Your task to perform on an android device: show emergency info Image 0: 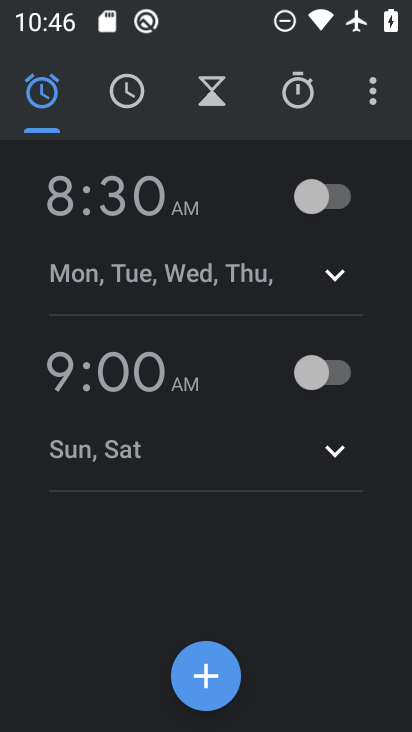
Step 0: press home button
Your task to perform on an android device: show emergency info Image 1: 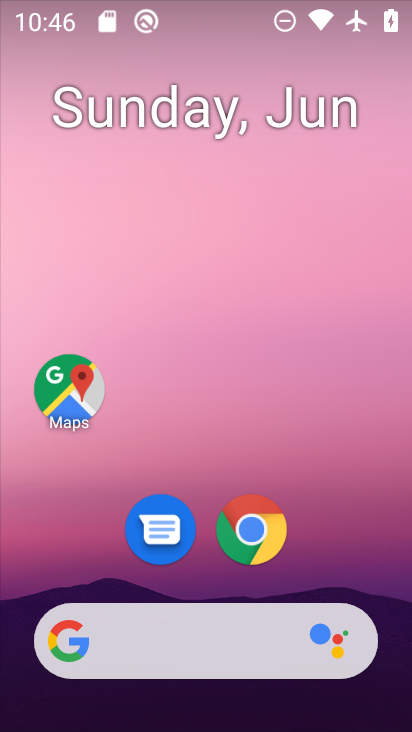
Step 1: drag from (398, 637) to (354, 10)
Your task to perform on an android device: show emergency info Image 2: 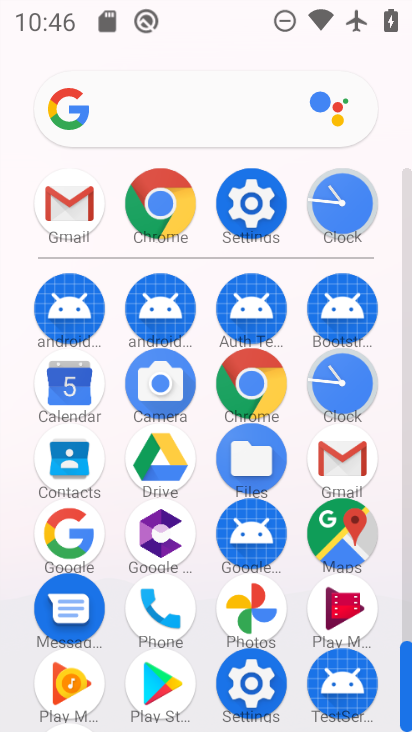
Step 2: click (407, 621)
Your task to perform on an android device: show emergency info Image 3: 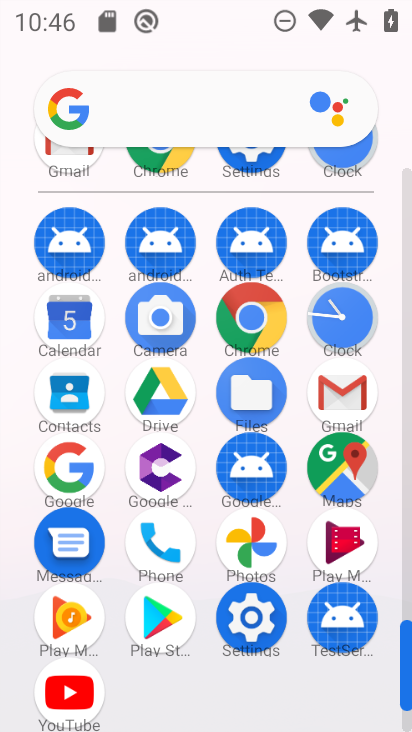
Step 3: click (251, 619)
Your task to perform on an android device: show emergency info Image 4: 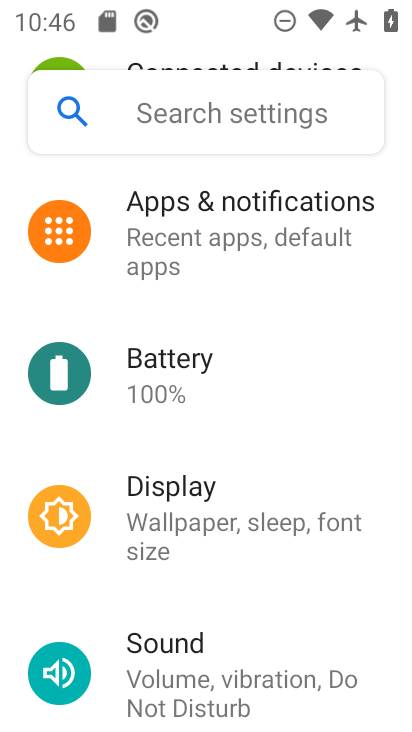
Step 4: drag from (362, 683) to (325, 247)
Your task to perform on an android device: show emergency info Image 5: 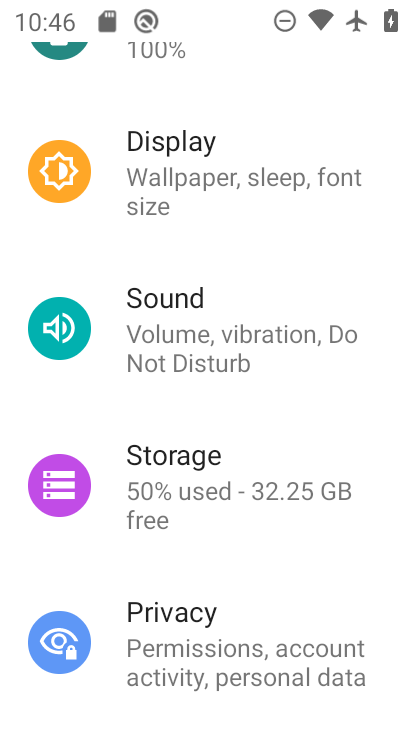
Step 5: drag from (342, 675) to (299, 247)
Your task to perform on an android device: show emergency info Image 6: 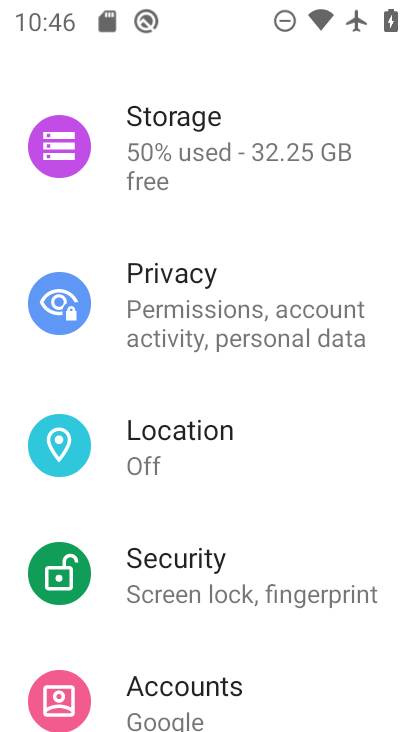
Step 6: drag from (312, 564) to (294, 123)
Your task to perform on an android device: show emergency info Image 7: 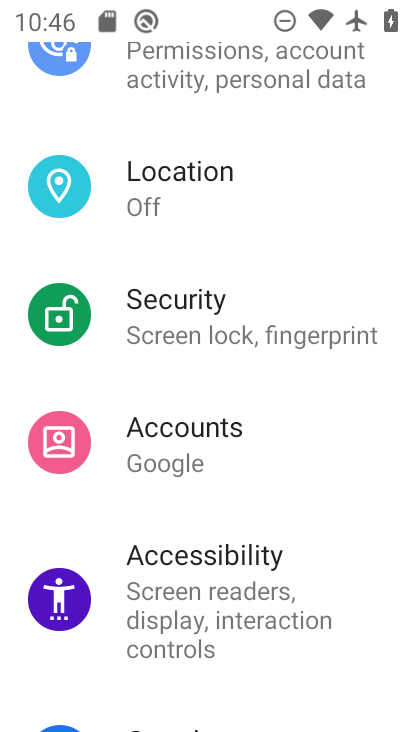
Step 7: drag from (300, 646) to (314, 228)
Your task to perform on an android device: show emergency info Image 8: 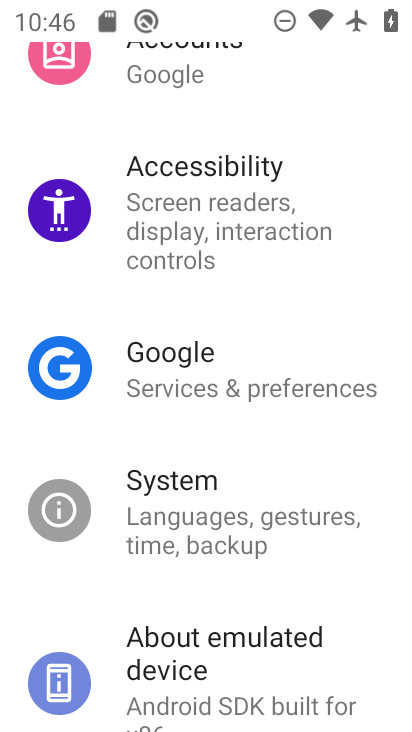
Step 8: drag from (358, 624) to (325, 311)
Your task to perform on an android device: show emergency info Image 9: 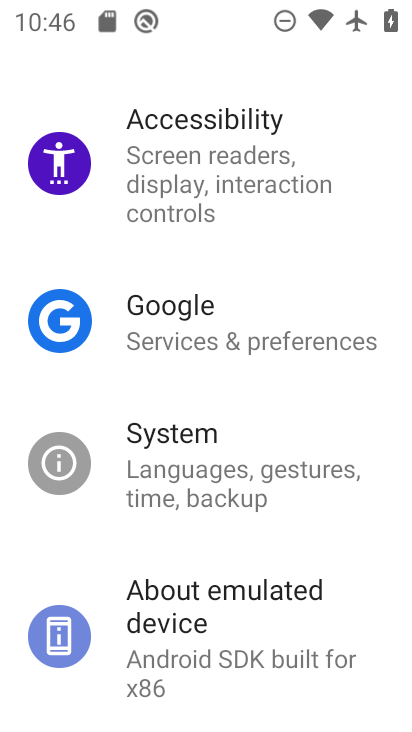
Step 9: click (219, 610)
Your task to perform on an android device: show emergency info Image 10: 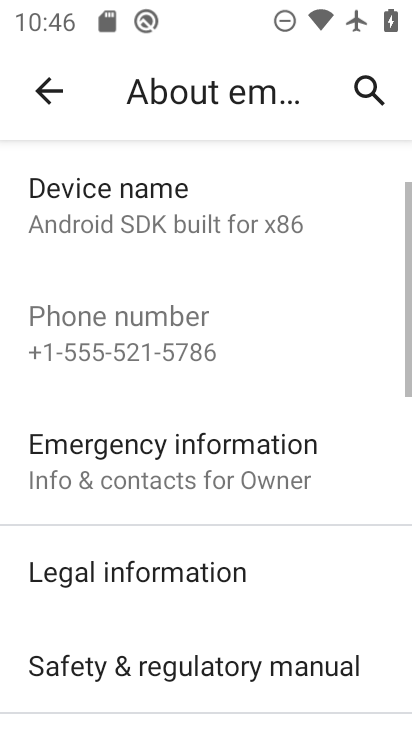
Step 10: click (150, 454)
Your task to perform on an android device: show emergency info Image 11: 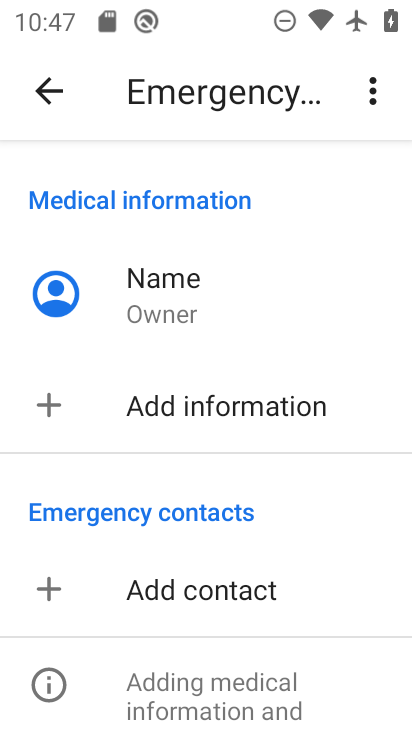
Step 11: task complete